Your task to perform on an android device: Go to eBay Image 0: 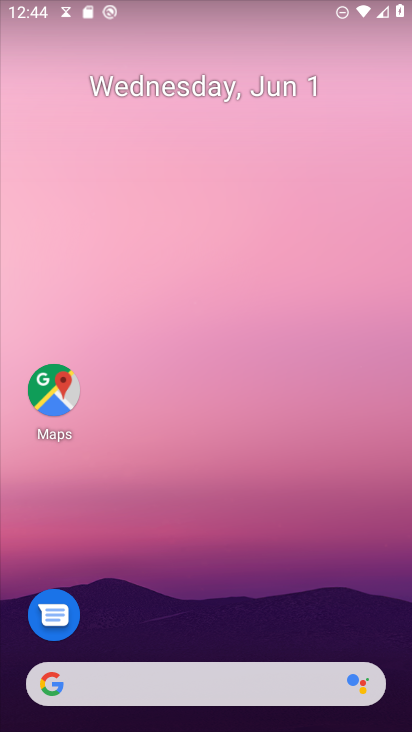
Step 0: drag from (308, 472) to (358, 120)
Your task to perform on an android device: Go to eBay Image 1: 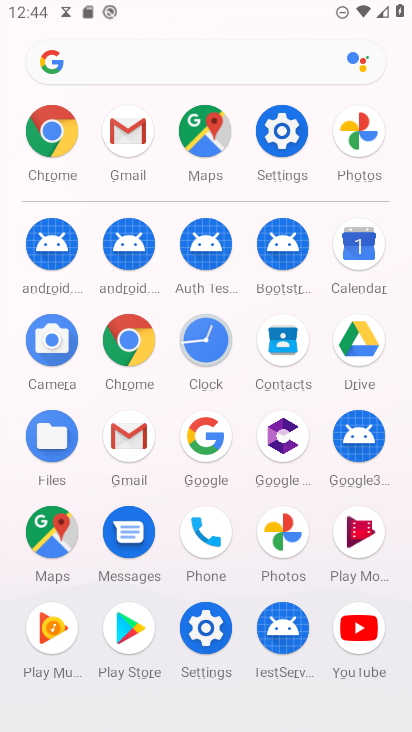
Step 1: click (113, 325)
Your task to perform on an android device: Go to eBay Image 2: 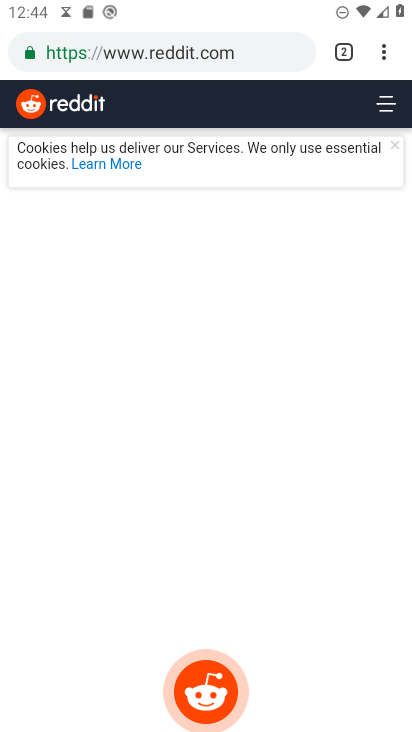
Step 2: click (238, 57)
Your task to perform on an android device: Go to eBay Image 3: 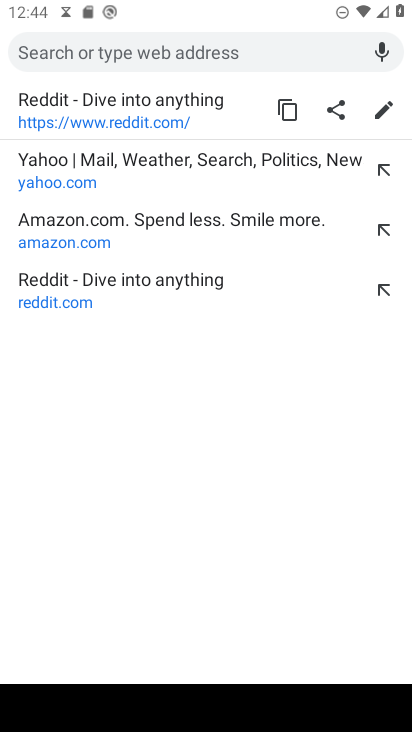
Step 3: type "ebay"
Your task to perform on an android device: Go to eBay Image 4: 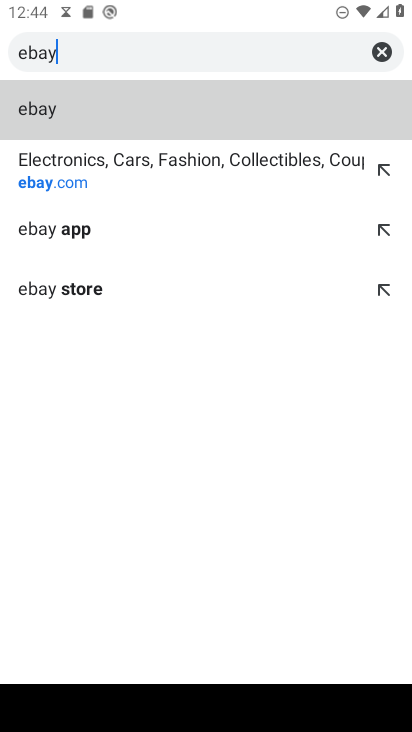
Step 4: click (79, 104)
Your task to perform on an android device: Go to eBay Image 5: 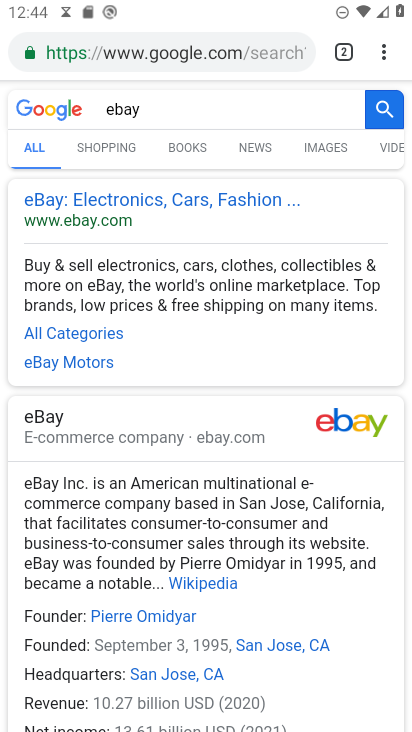
Step 5: click (168, 200)
Your task to perform on an android device: Go to eBay Image 6: 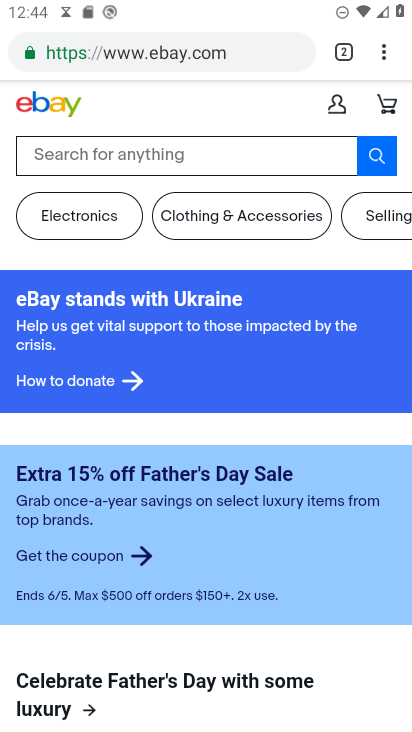
Step 6: task complete